Your task to perform on an android device: turn on improve location accuracy Image 0: 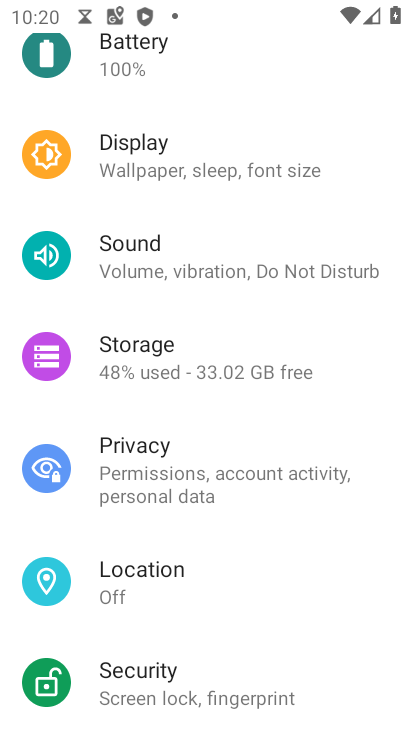
Step 0: press back button
Your task to perform on an android device: turn on improve location accuracy Image 1: 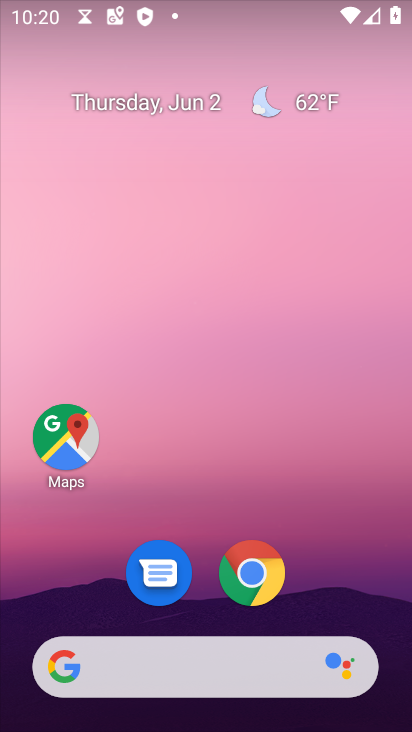
Step 1: drag from (340, 578) to (230, 221)
Your task to perform on an android device: turn on improve location accuracy Image 2: 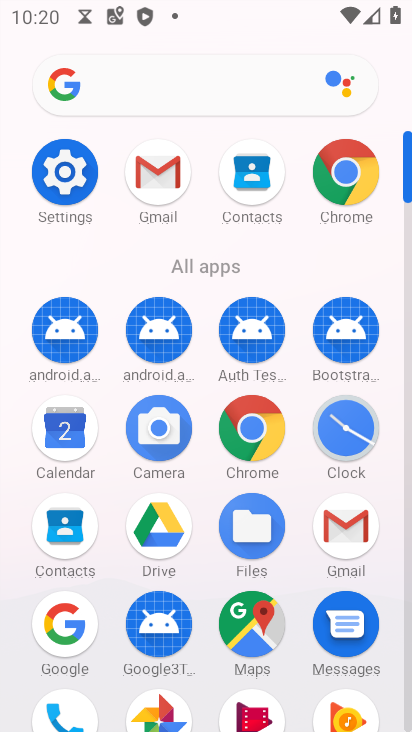
Step 2: click (65, 170)
Your task to perform on an android device: turn on improve location accuracy Image 3: 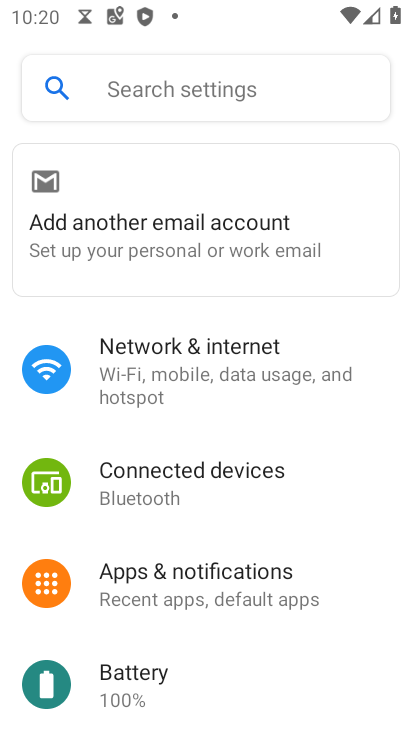
Step 3: drag from (204, 526) to (204, 343)
Your task to perform on an android device: turn on improve location accuracy Image 4: 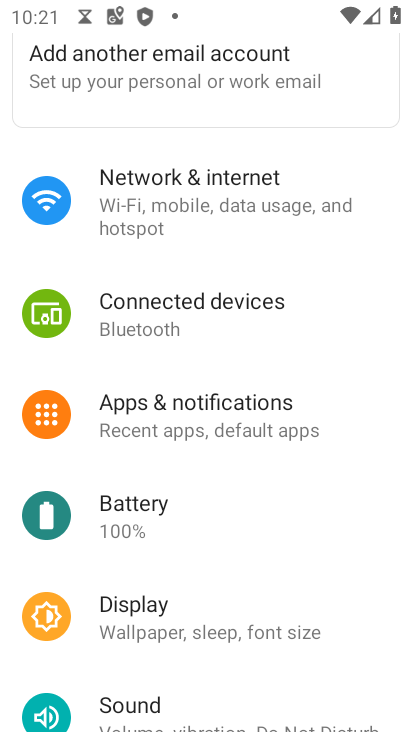
Step 4: drag from (225, 590) to (185, 397)
Your task to perform on an android device: turn on improve location accuracy Image 5: 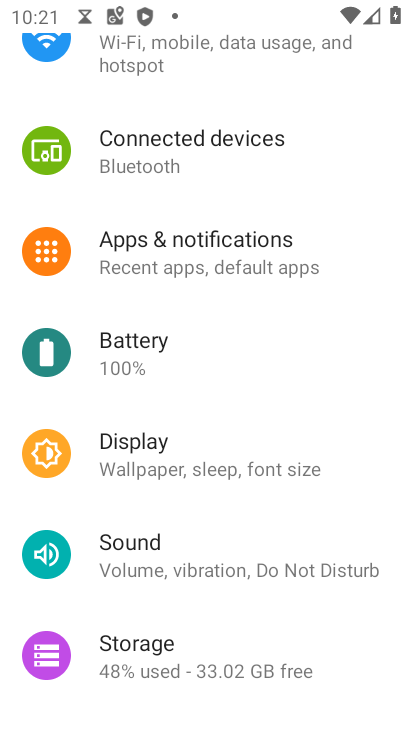
Step 5: drag from (217, 620) to (222, 456)
Your task to perform on an android device: turn on improve location accuracy Image 6: 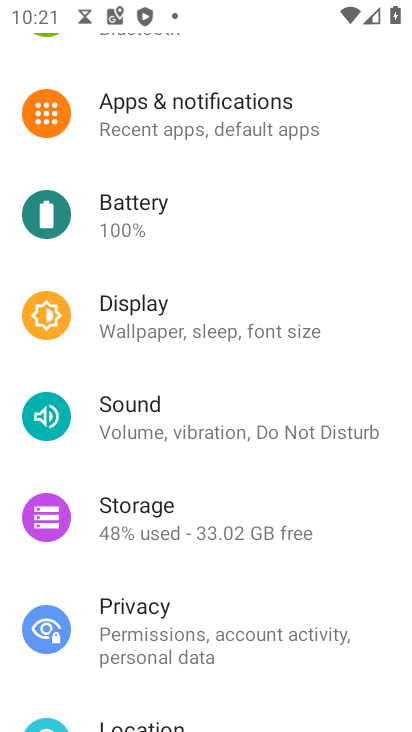
Step 6: drag from (193, 566) to (218, 388)
Your task to perform on an android device: turn on improve location accuracy Image 7: 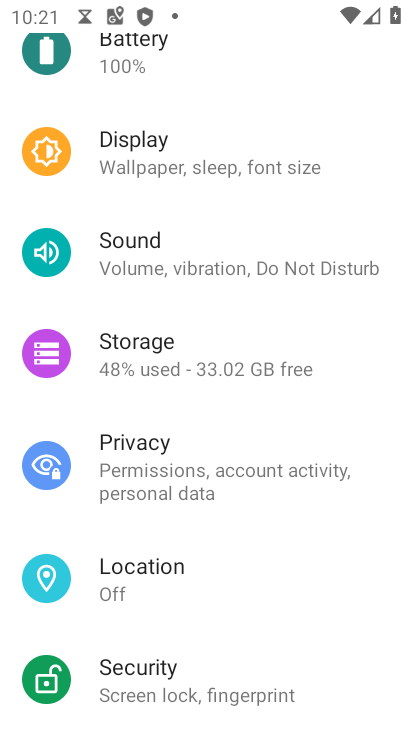
Step 7: drag from (194, 611) to (224, 506)
Your task to perform on an android device: turn on improve location accuracy Image 8: 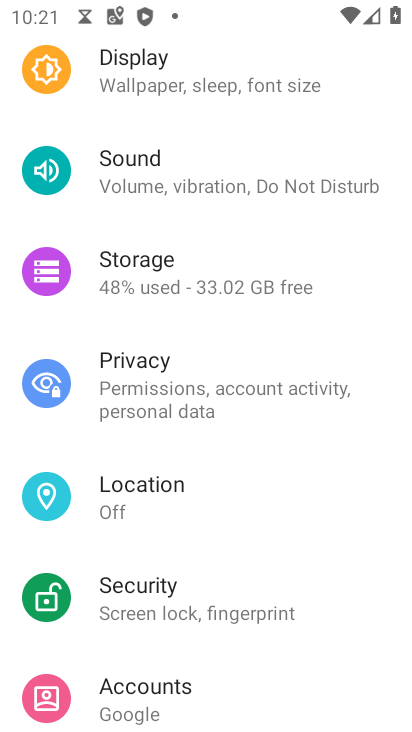
Step 8: click (194, 490)
Your task to perform on an android device: turn on improve location accuracy Image 9: 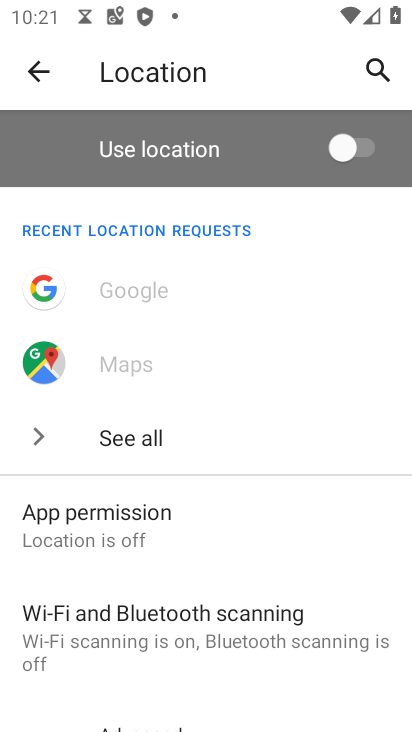
Step 9: drag from (168, 666) to (183, 463)
Your task to perform on an android device: turn on improve location accuracy Image 10: 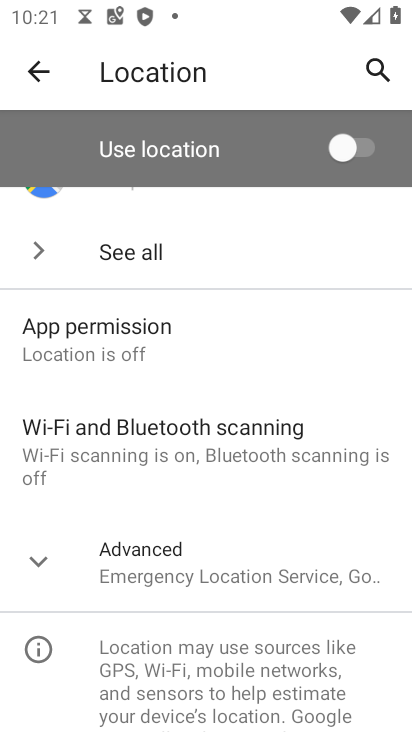
Step 10: click (192, 581)
Your task to perform on an android device: turn on improve location accuracy Image 11: 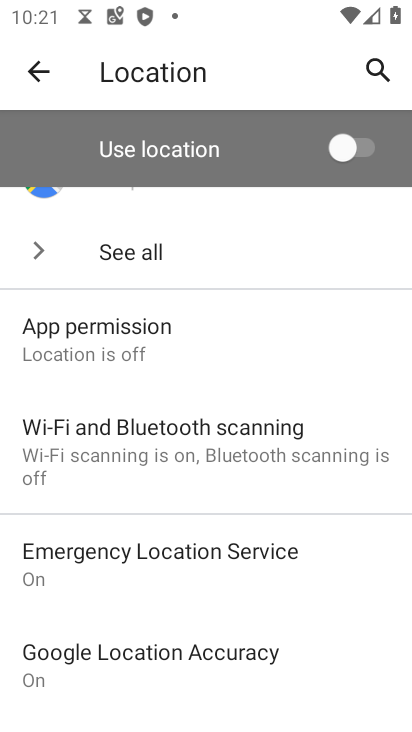
Step 11: click (177, 663)
Your task to perform on an android device: turn on improve location accuracy Image 12: 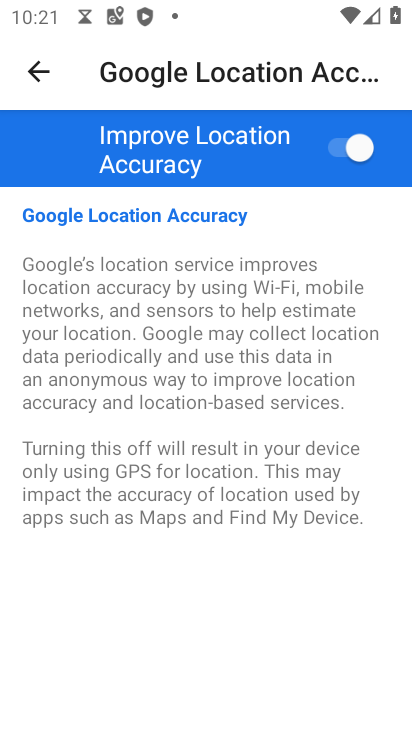
Step 12: task complete